Your task to perform on an android device: make emails show in primary in the gmail app Image 0: 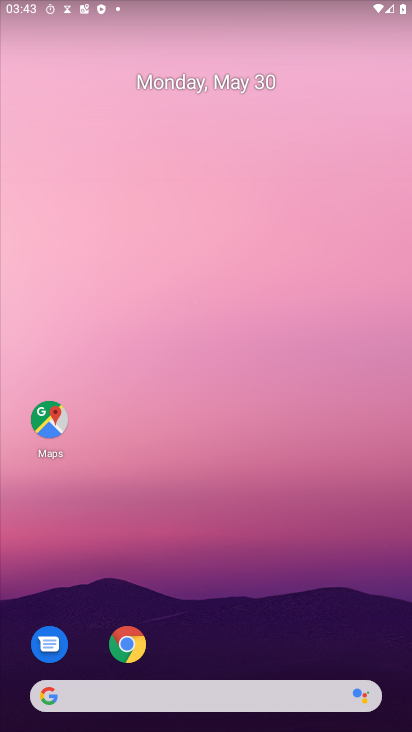
Step 0: drag from (267, 665) to (273, 105)
Your task to perform on an android device: make emails show in primary in the gmail app Image 1: 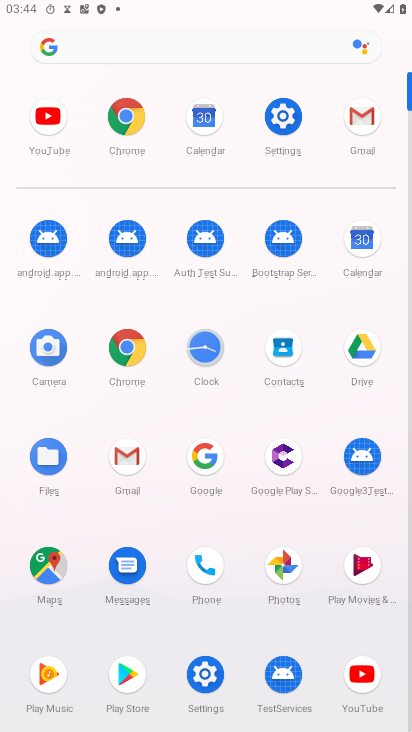
Step 1: click (364, 115)
Your task to perform on an android device: make emails show in primary in the gmail app Image 2: 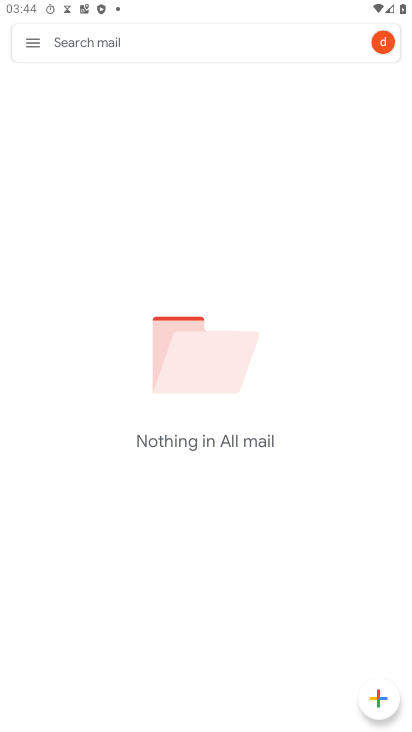
Step 2: click (24, 25)
Your task to perform on an android device: make emails show in primary in the gmail app Image 3: 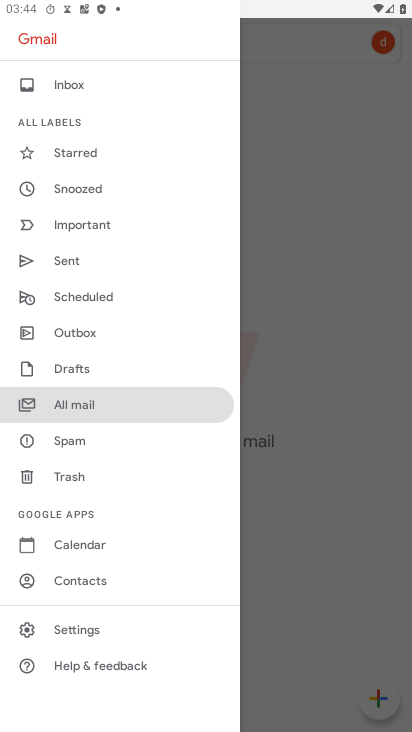
Step 3: click (90, 638)
Your task to perform on an android device: make emails show in primary in the gmail app Image 4: 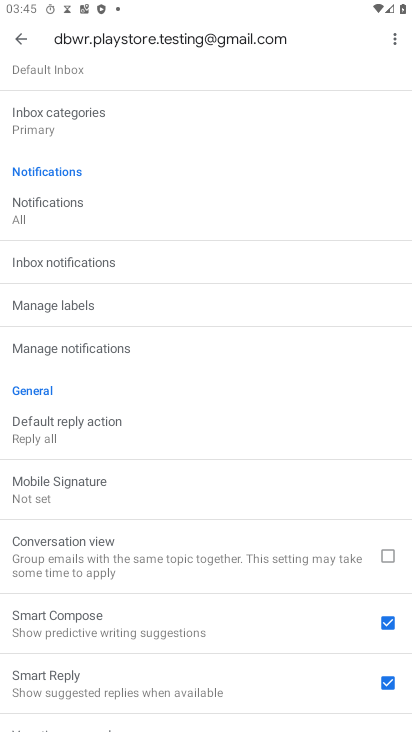
Step 4: drag from (164, 119) to (169, 495)
Your task to perform on an android device: make emails show in primary in the gmail app Image 5: 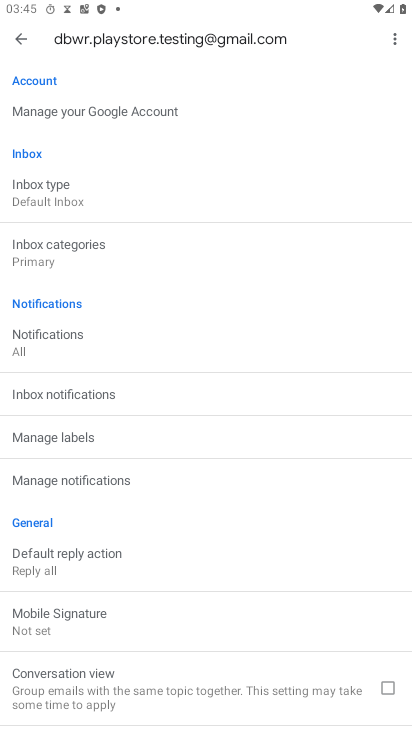
Step 5: click (49, 244)
Your task to perform on an android device: make emails show in primary in the gmail app Image 6: 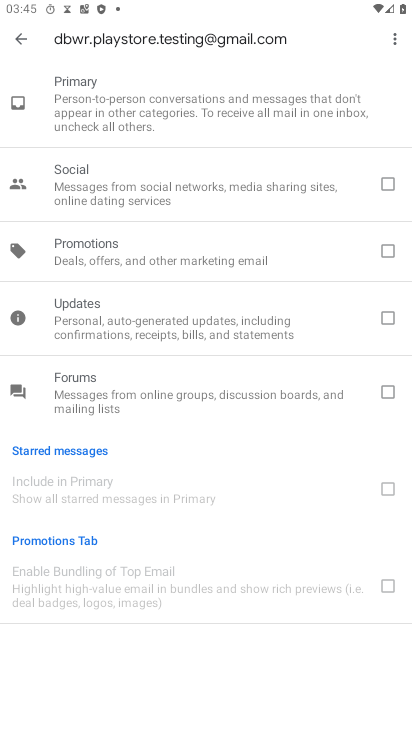
Step 6: click (148, 108)
Your task to perform on an android device: make emails show in primary in the gmail app Image 7: 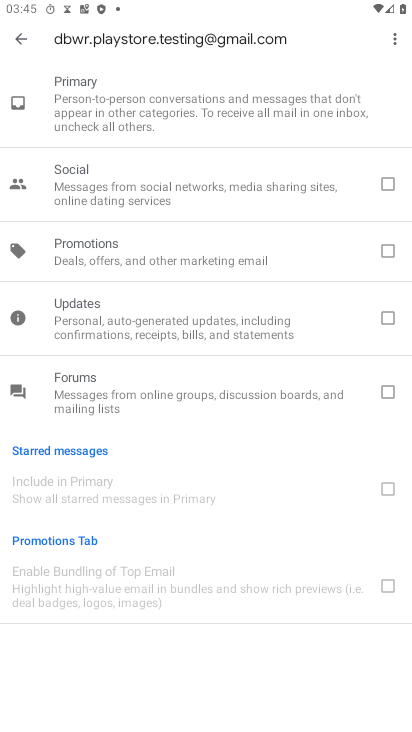
Step 7: task complete